Your task to perform on an android device: refresh tabs in the chrome app Image 0: 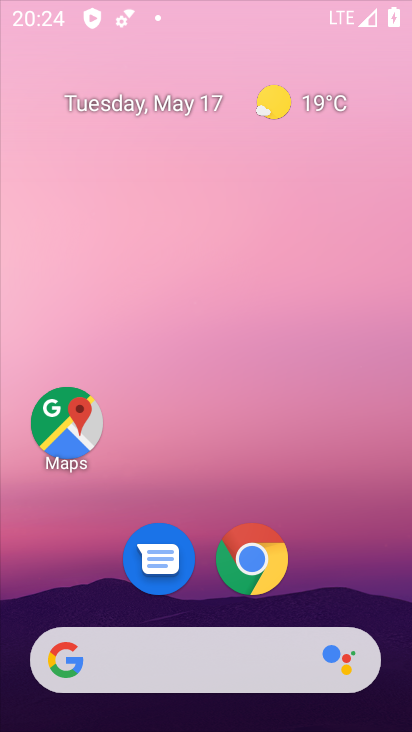
Step 0: click (317, 240)
Your task to perform on an android device: refresh tabs in the chrome app Image 1: 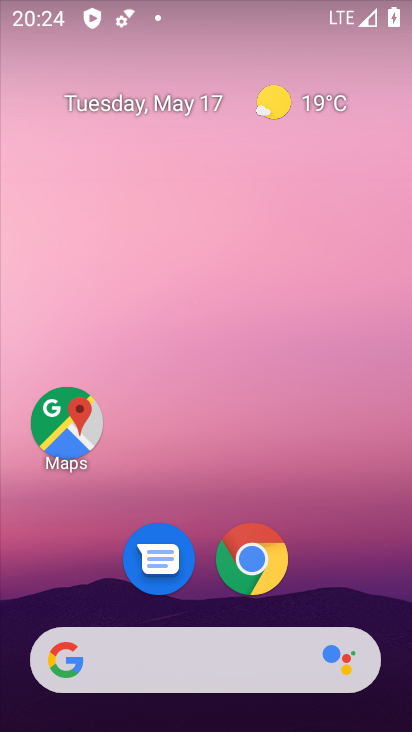
Step 1: drag from (200, 611) to (240, 110)
Your task to perform on an android device: refresh tabs in the chrome app Image 2: 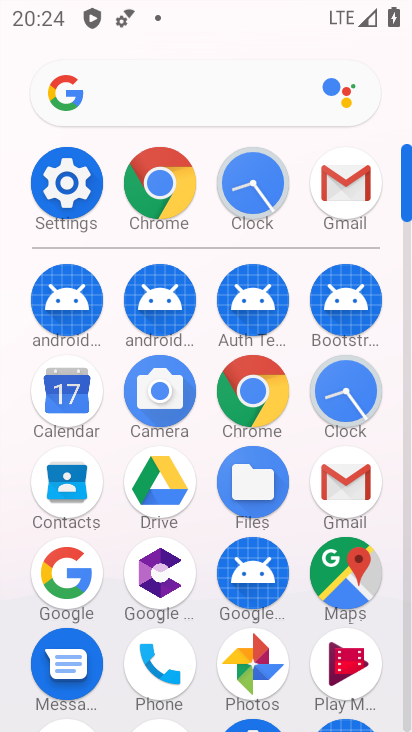
Step 2: click (251, 402)
Your task to perform on an android device: refresh tabs in the chrome app Image 3: 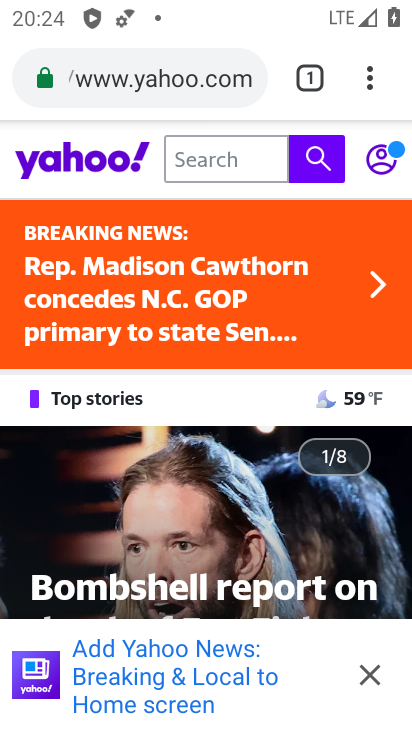
Step 3: click (351, 70)
Your task to perform on an android device: refresh tabs in the chrome app Image 4: 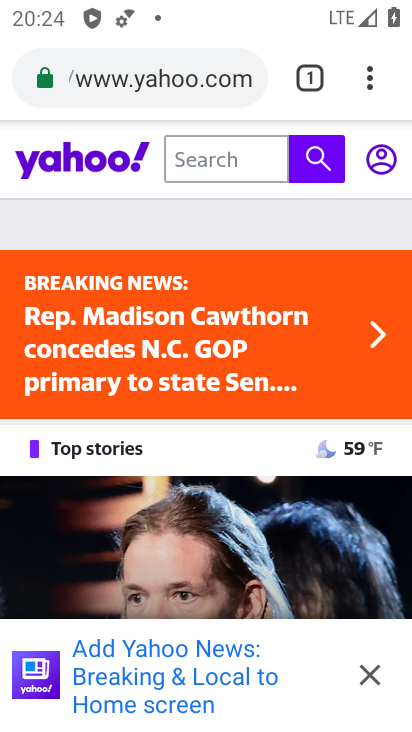
Step 4: task complete